Your task to perform on an android device: change alarm snooze length Image 0: 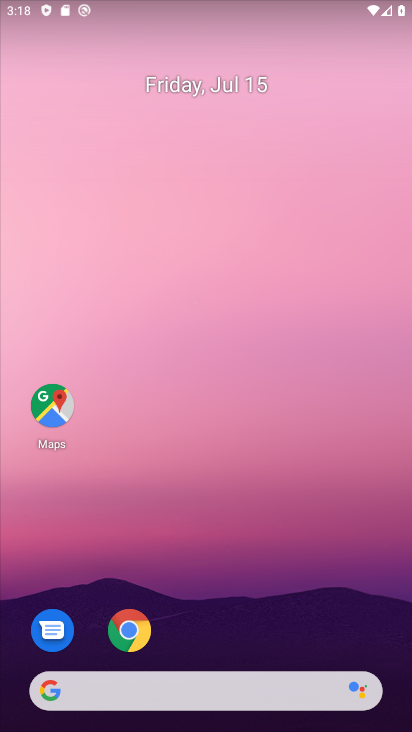
Step 0: drag from (228, 655) to (220, 81)
Your task to perform on an android device: change alarm snooze length Image 1: 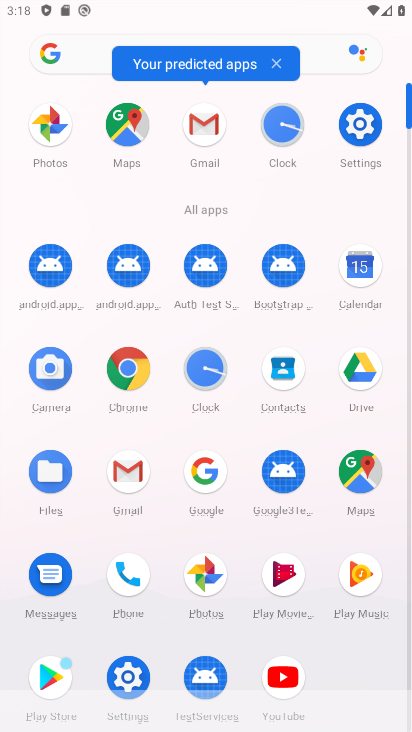
Step 1: click (199, 366)
Your task to perform on an android device: change alarm snooze length Image 2: 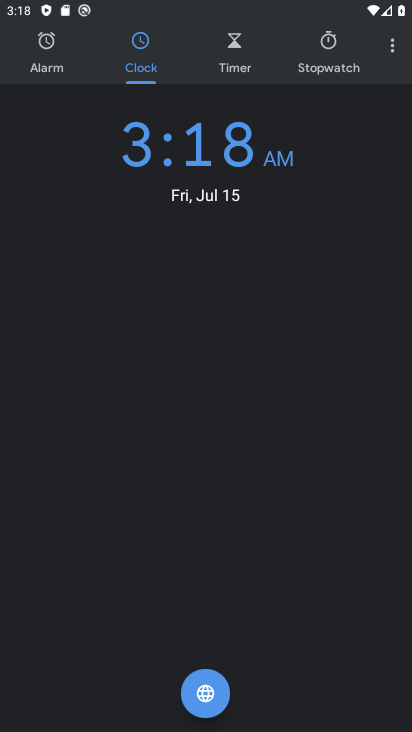
Step 2: click (393, 45)
Your task to perform on an android device: change alarm snooze length Image 3: 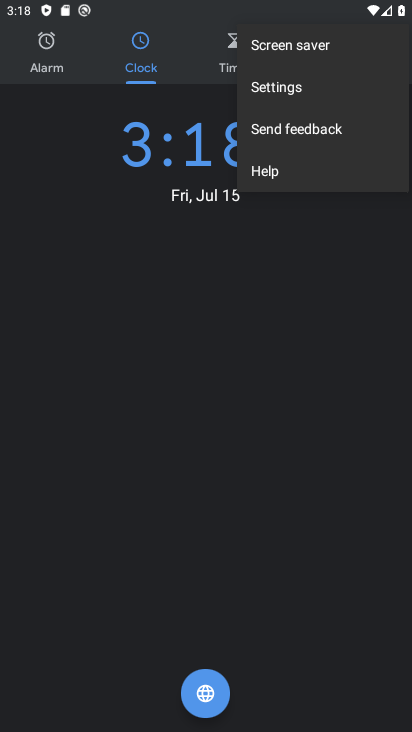
Step 3: click (284, 90)
Your task to perform on an android device: change alarm snooze length Image 4: 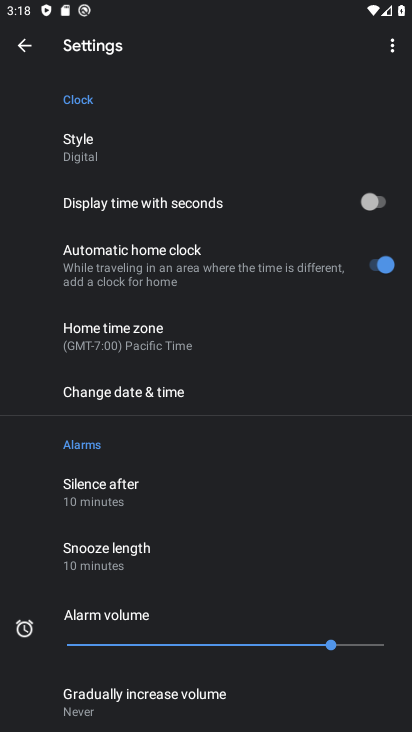
Step 4: click (138, 550)
Your task to perform on an android device: change alarm snooze length Image 5: 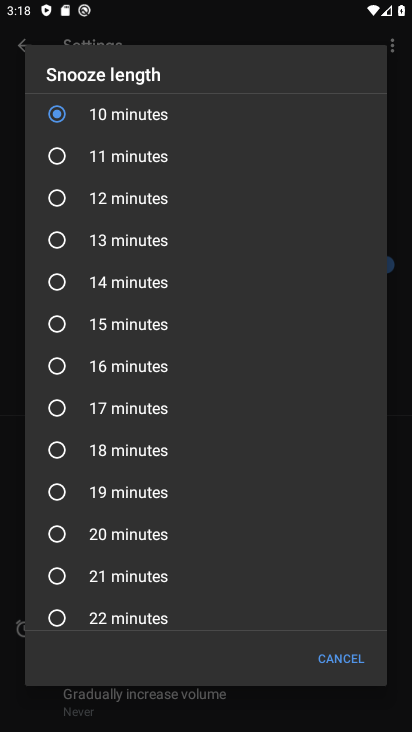
Step 5: click (77, 169)
Your task to perform on an android device: change alarm snooze length Image 6: 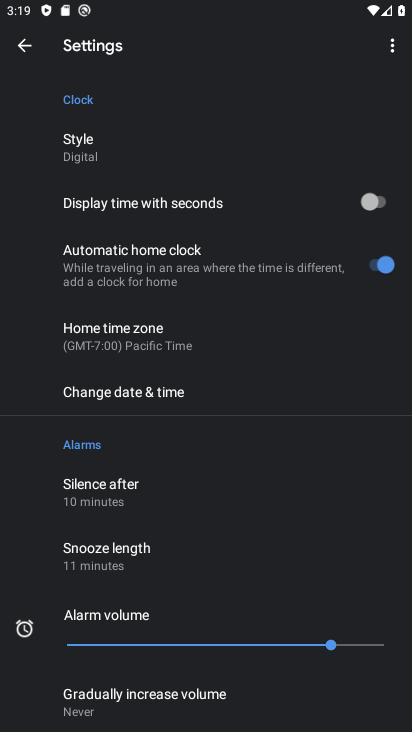
Step 6: click (136, 548)
Your task to perform on an android device: change alarm snooze length Image 7: 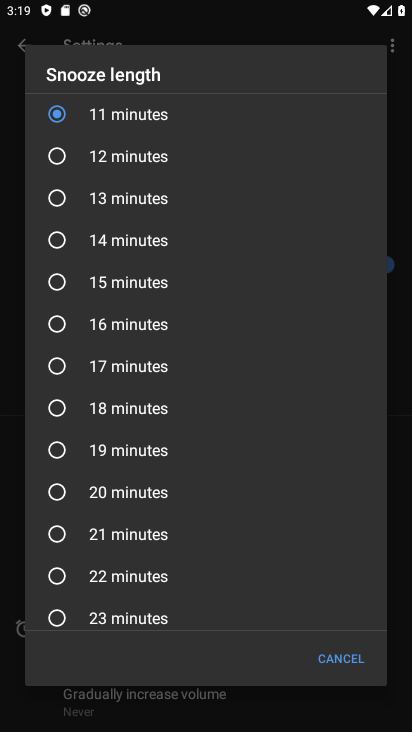
Step 7: click (85, 166)
Your task to perform on an android device: change alarm snooze length Image 8: 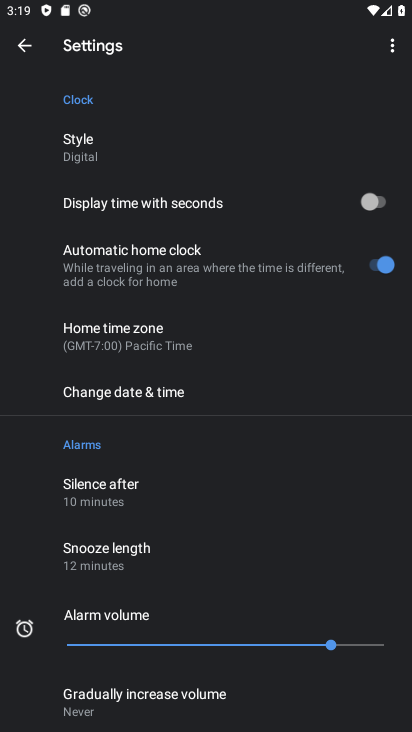
Step 8: task complete